Your task to perform on an android device: visit the assistant section in the google photos Image 0: 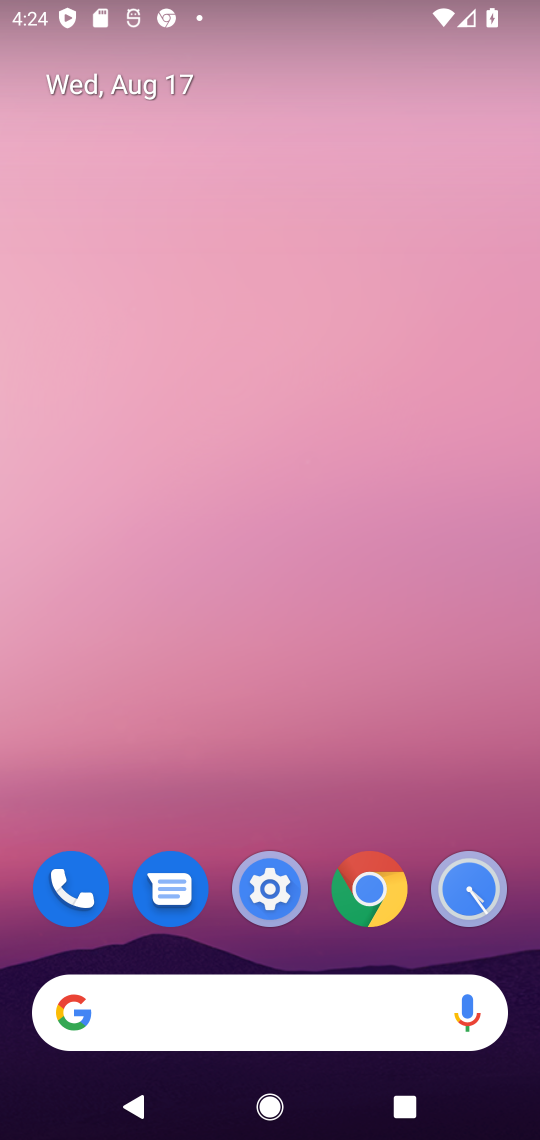
Step 0: drag from (386, 824) to (262, 41)
Your task to perform on an android device: visit the assistant section in the google photos Image 1: 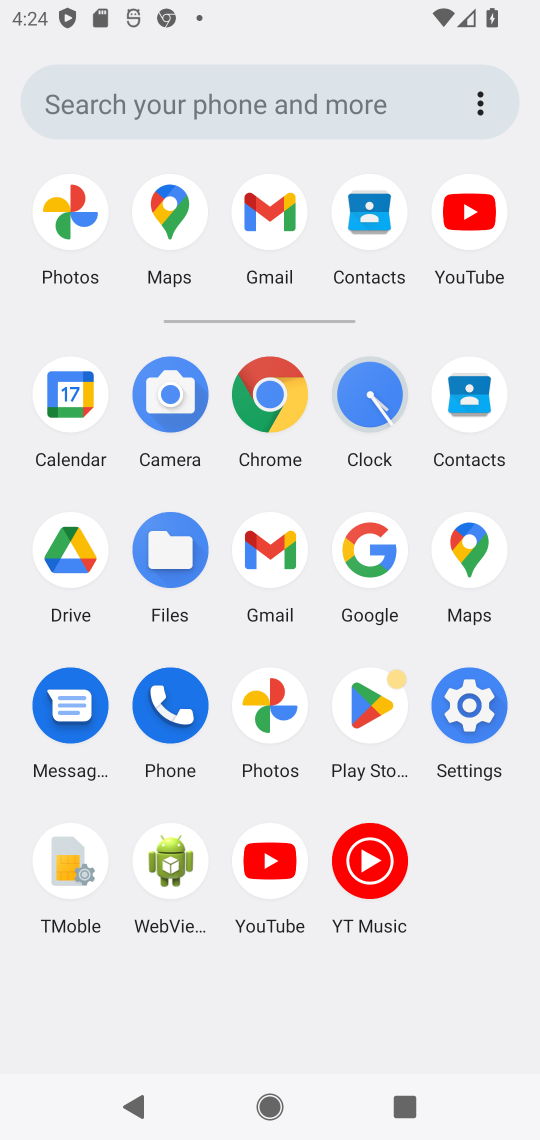
Step 1: click (65, 206)
Your task to perform on an android device: visit the assistant section in the google photos Image 2: 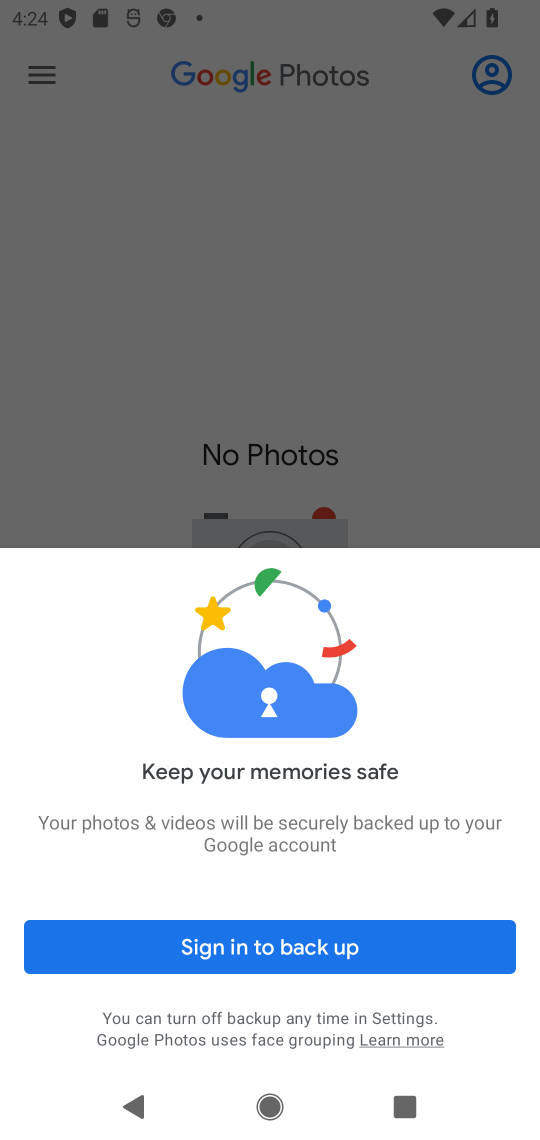
Step 2: click (238, 944)
Your task to perform on an android device: visit the assistant section in the google photos Image 3: 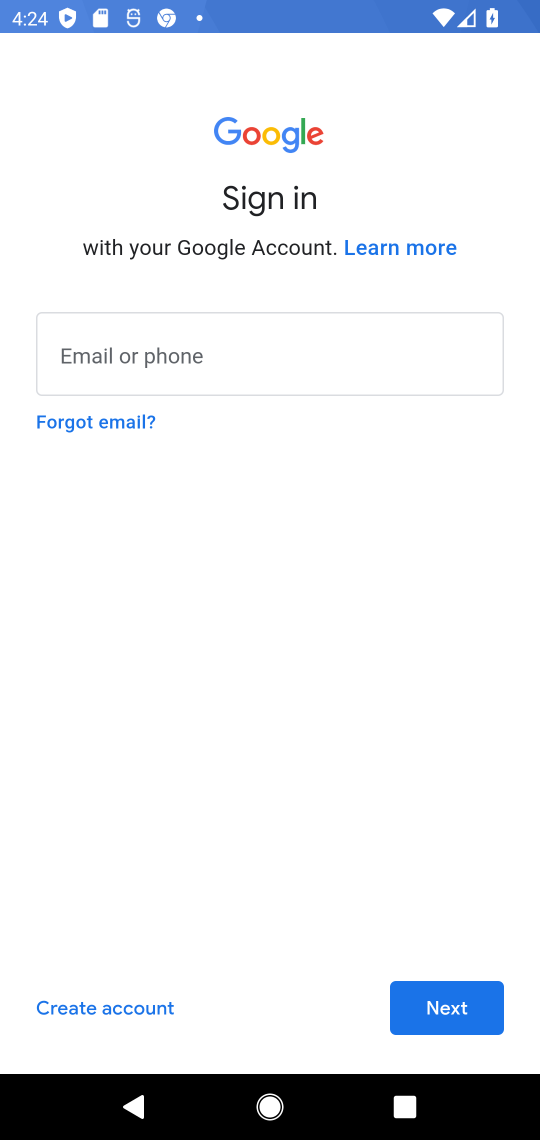
Step 3: task complete